Your task to perform on an android device: turn pop-ups on in chrome Image 0: 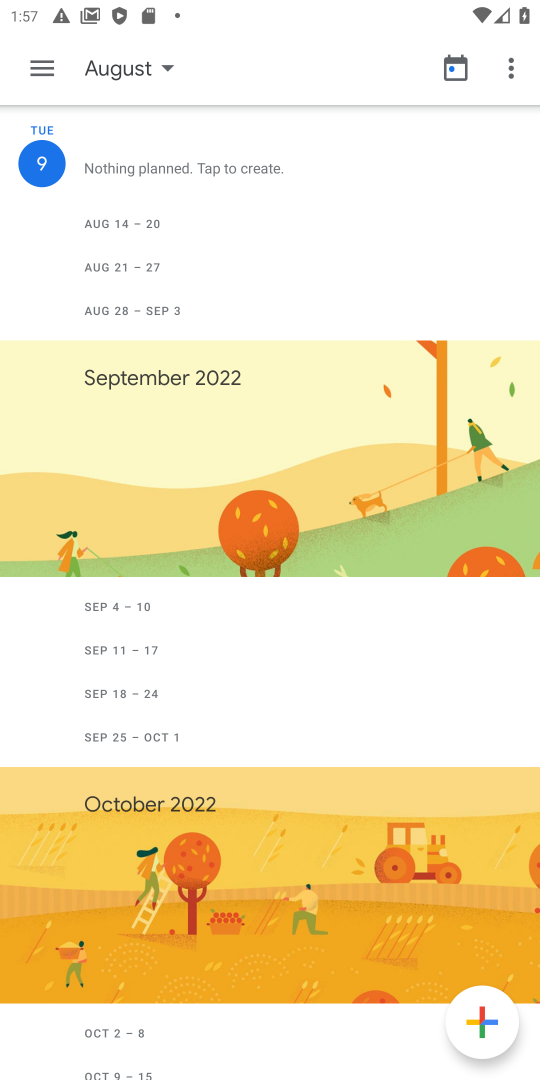
Step 0: press back button
Your task to perform on an android device: turn pop-ups on in chrome Image 1: 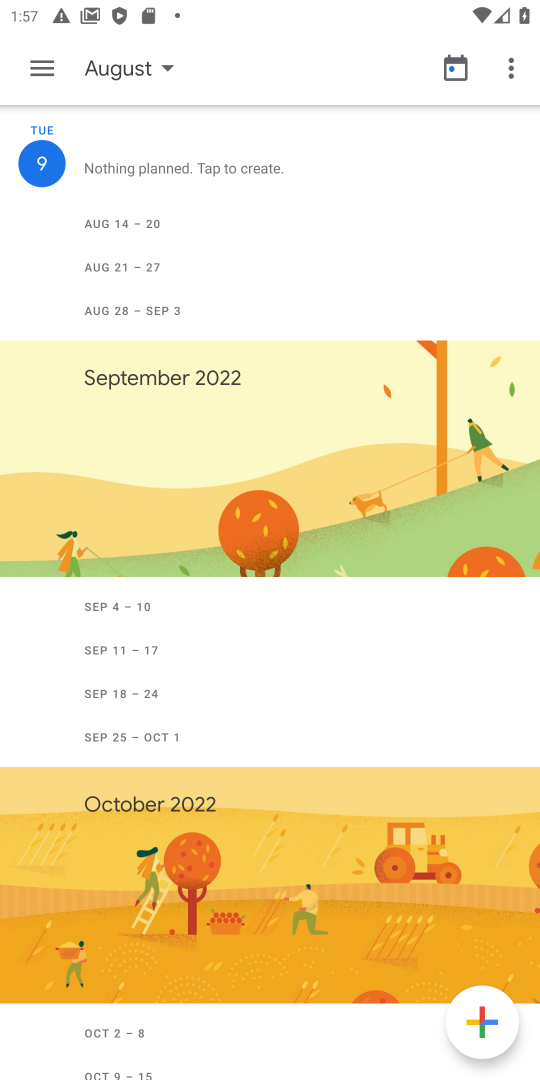
Step 1: press back button
Your task to perform on an android device: turn pop-ups on in chrome Image 2: 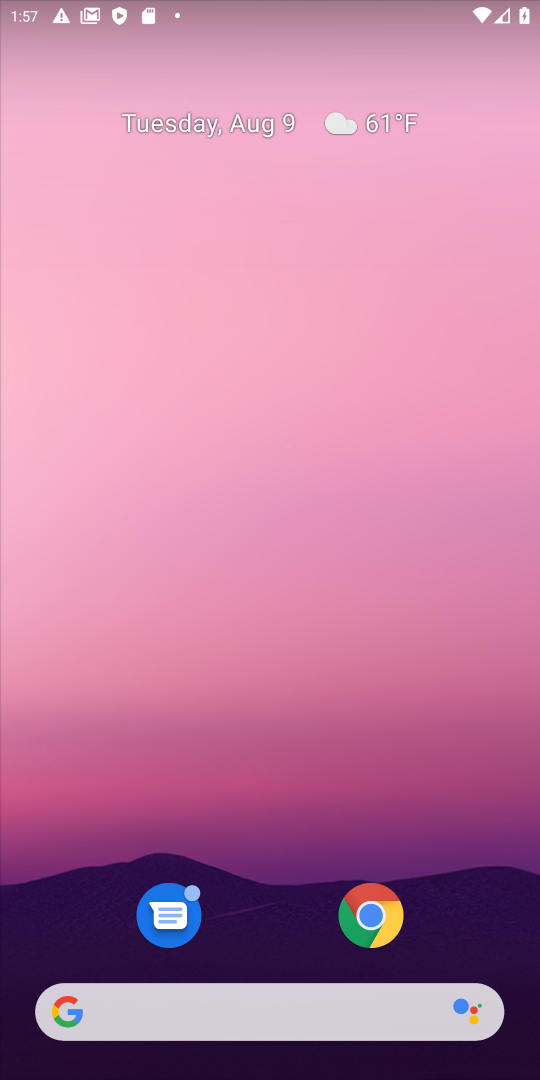
Step 2: press back button
Your task to perform on an android device: turn pop-ups on in chrome Image 3: 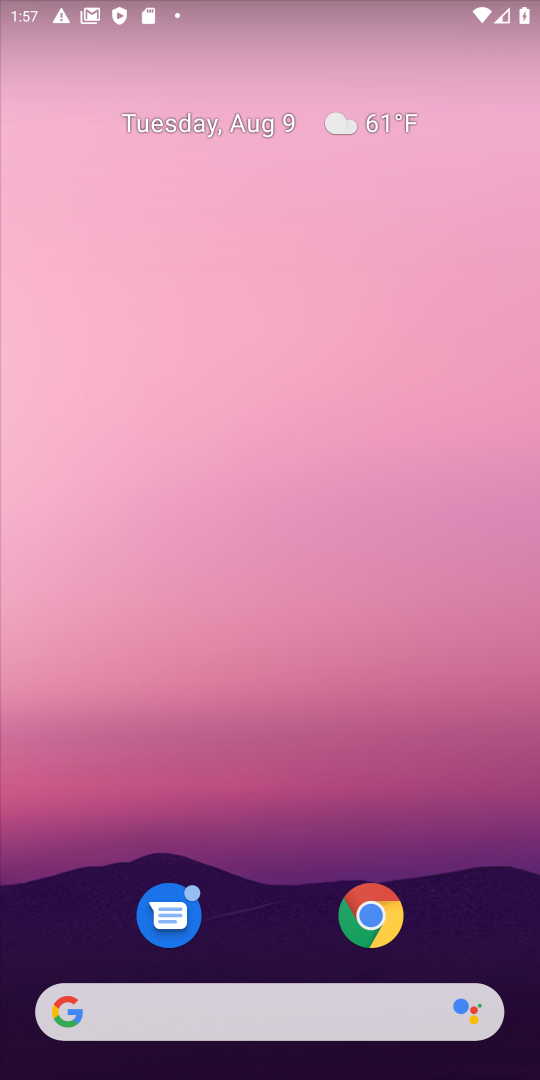
Step 3: drag from (177, 74) to (294, 45)
Your task to perform on an android device: turn pop-ups on in chrome Image 4: 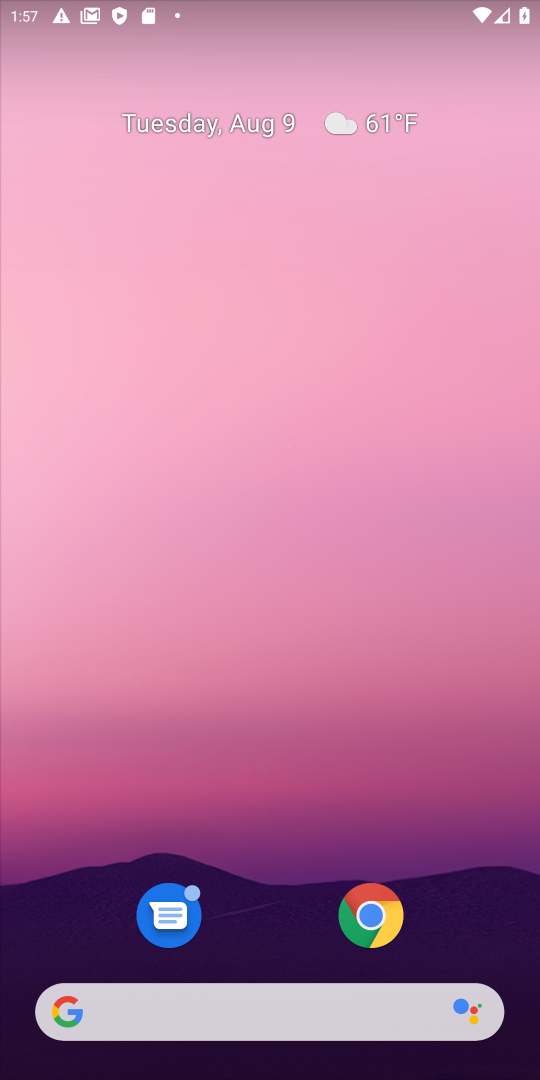
Step 4: drag from (236, 23) to (101, 172)
Your task to perform on an android device: turn pop-ups on in chrome Image 5: 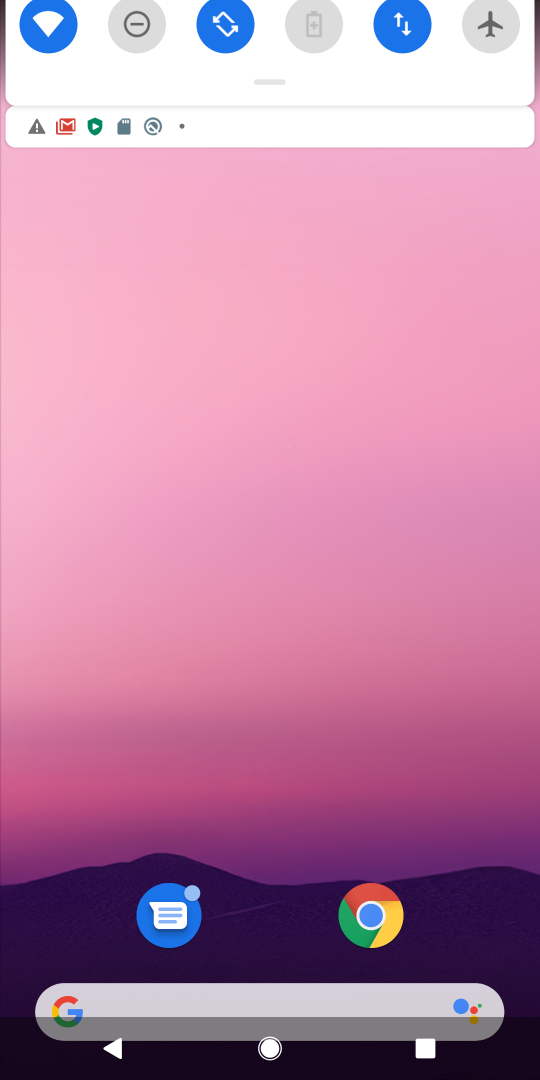
Step 5: drag from (223, 7) to (245, 55)
Your task to perform on an android device: turn pop-ups on in chrome Image 6: 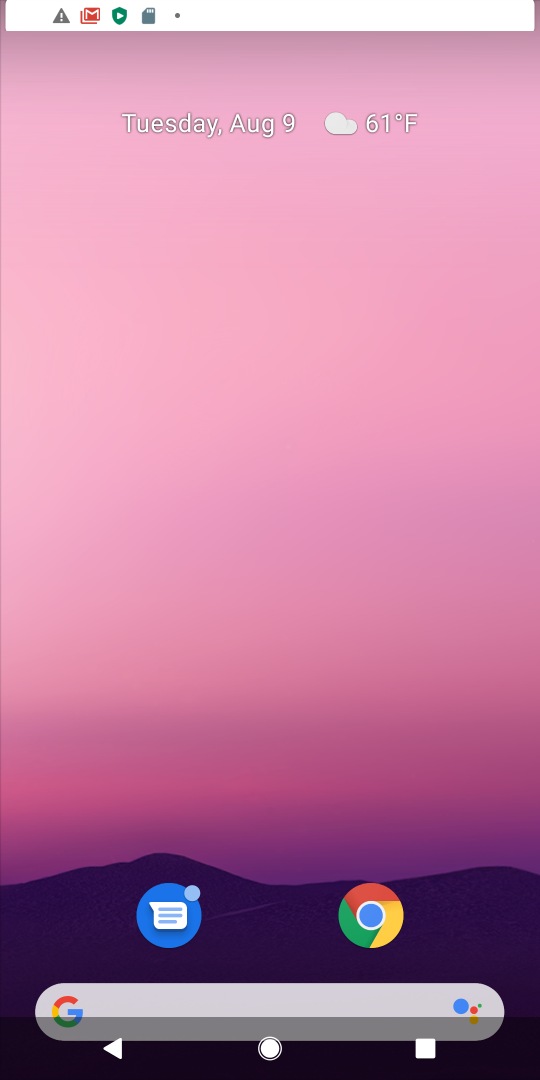
Step 6: drag from (286, 865) to (401, 168)
Your task to perform on an android device: turn pop-ups on in chrome Image 7: 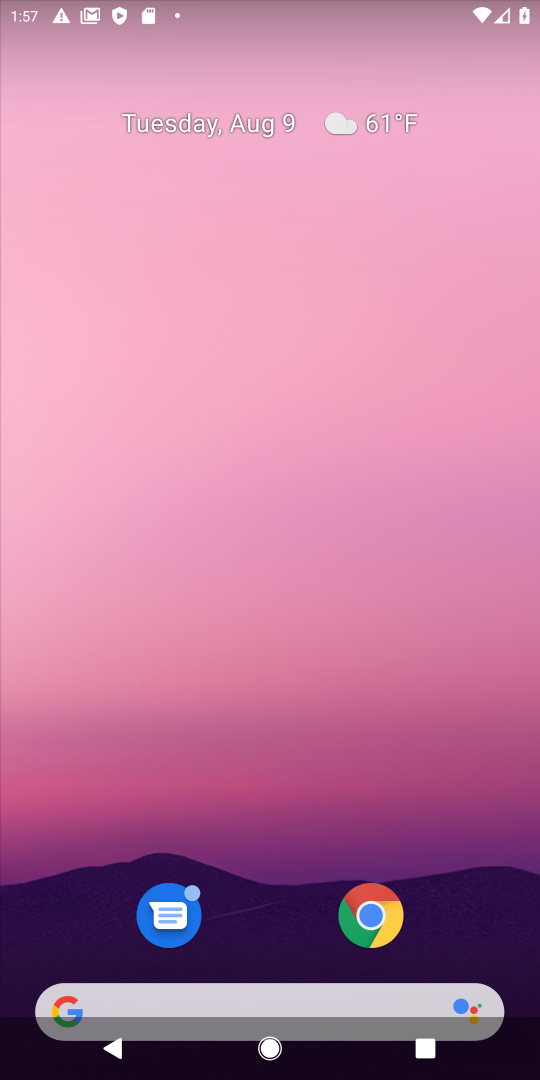
Step 7: drag from (254, 1070) to (251, 417)
Your task to perform on an android device: turn pop-ups on in chrome Image 8: 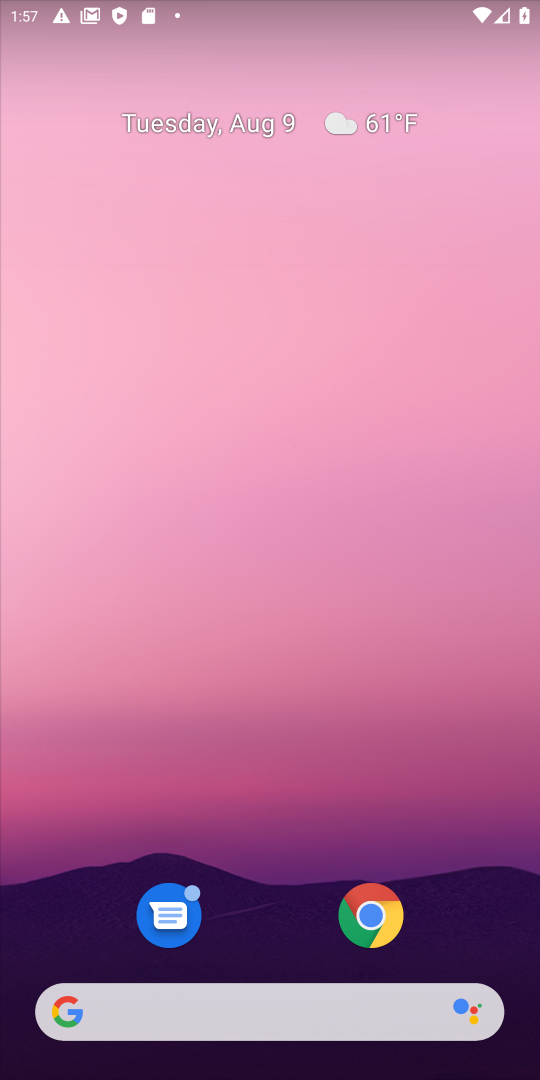
Step 8: click (248, 517)
Your task to perform on an android device: turn pop-ups on in chrome Image 9: 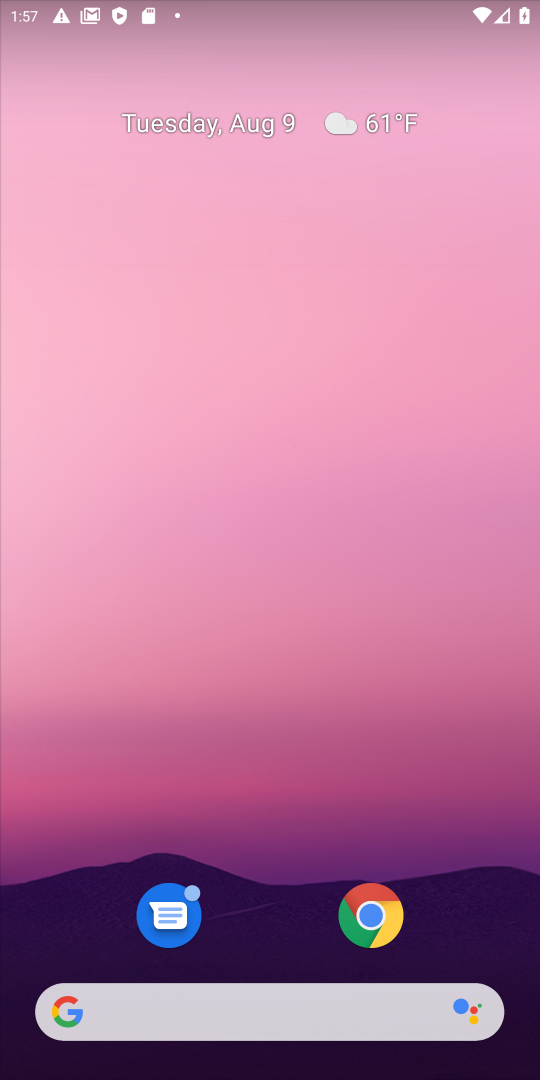
Step 9: drag from (328, 736) to (328, 279)
Your task to perform on an android device: turn pop-ups on in chrome Image 10: 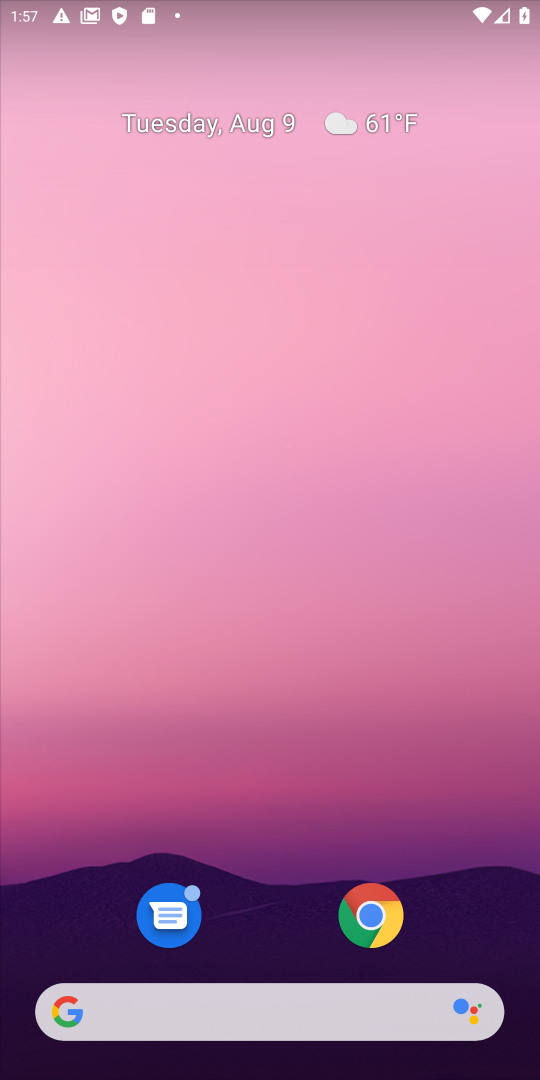
Step 10: drag from (346, 298) to (346, 124)
Your task to perform on an android device: turn pop-ups on in chrome Image 11: 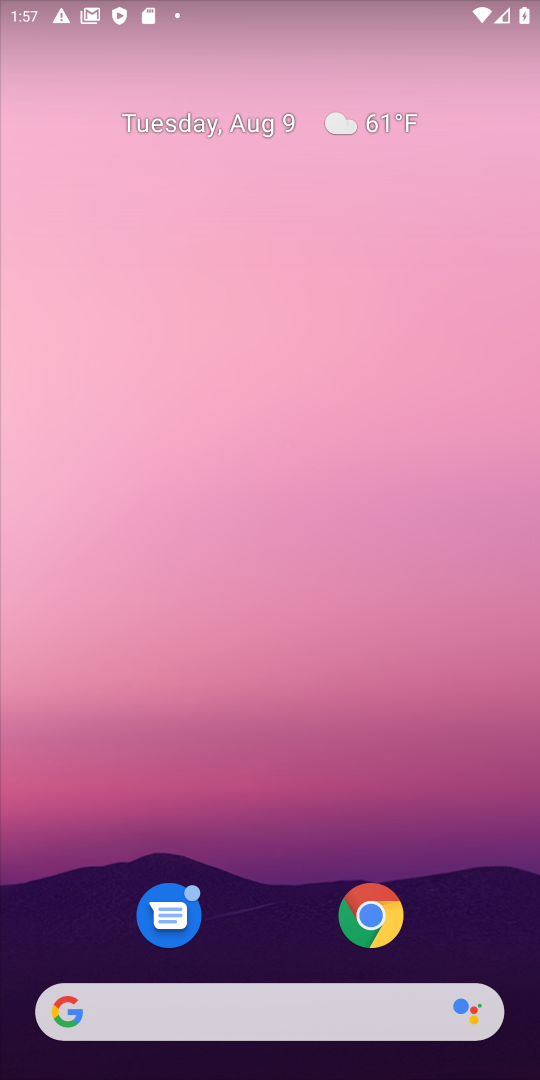
Step 11: click (326, 284)
Your task to perform on an android device: turn pop-ups on in chrome Image 12: 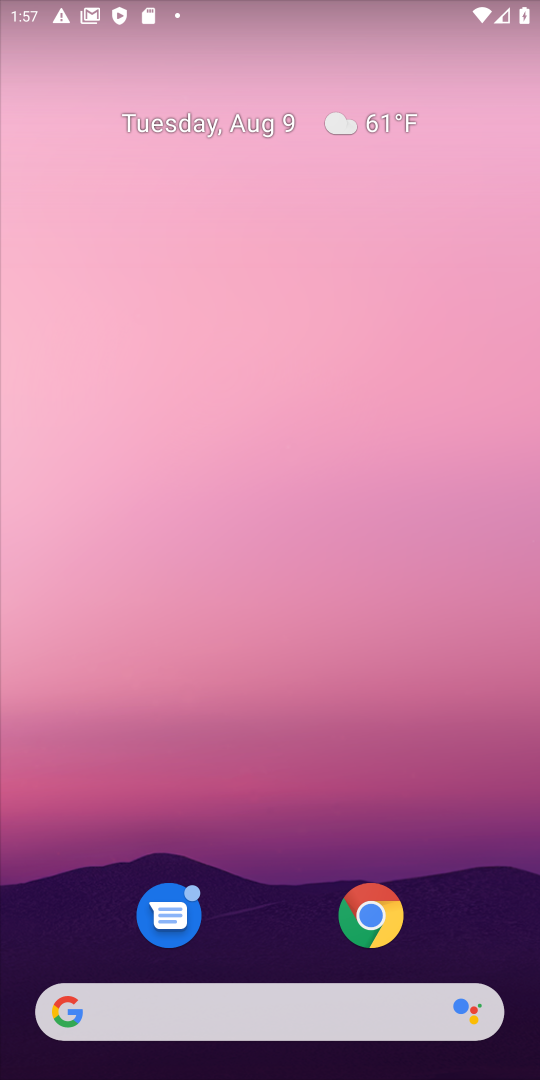
Step 12: drag from (373, 946) to (371, 227)
Your task to perform on an android device: turn pop-ups on in chrome Image 13: 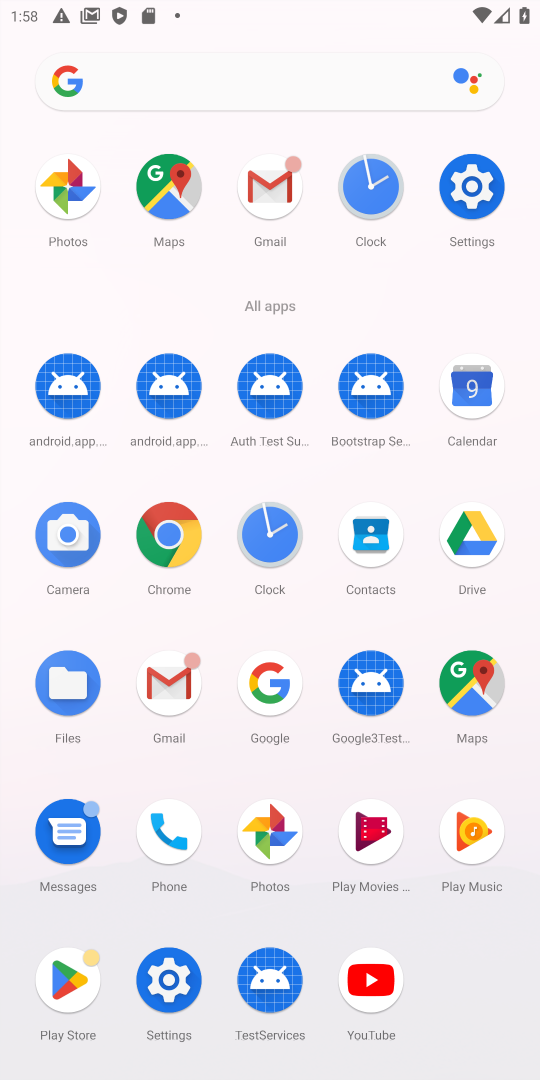
Step 13: click (156, 537)
Your task to perform on an android device: turn pop-ups on in chrome Image 14: 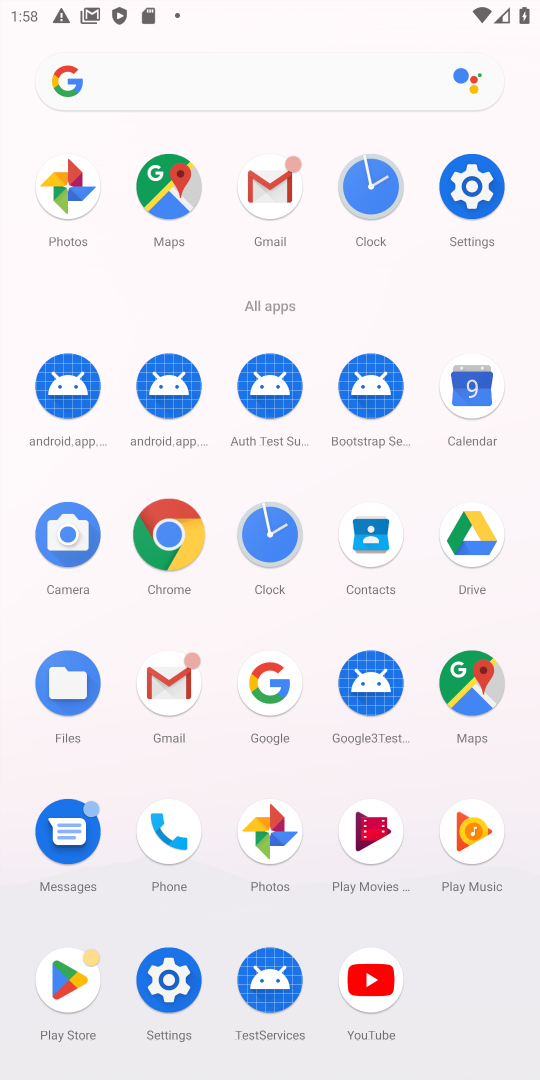
Step 14: click (157, 537)
Your task to perform on an android device: turn pop-ups on in chrome Image 15: 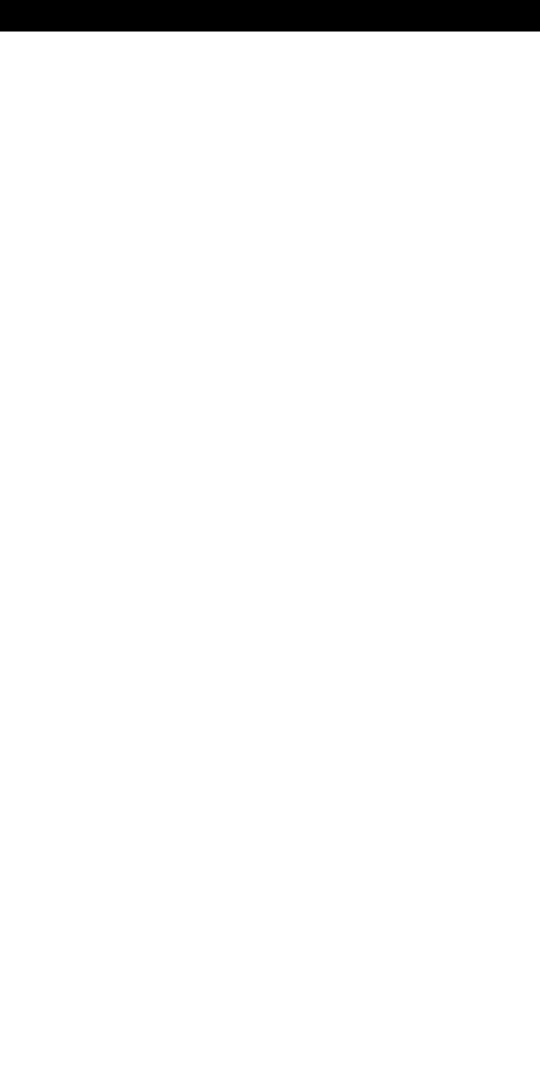
Step 15: click (169, 531)
Your task to perform on an android device: turn pop-ups on in chrome Image 16: 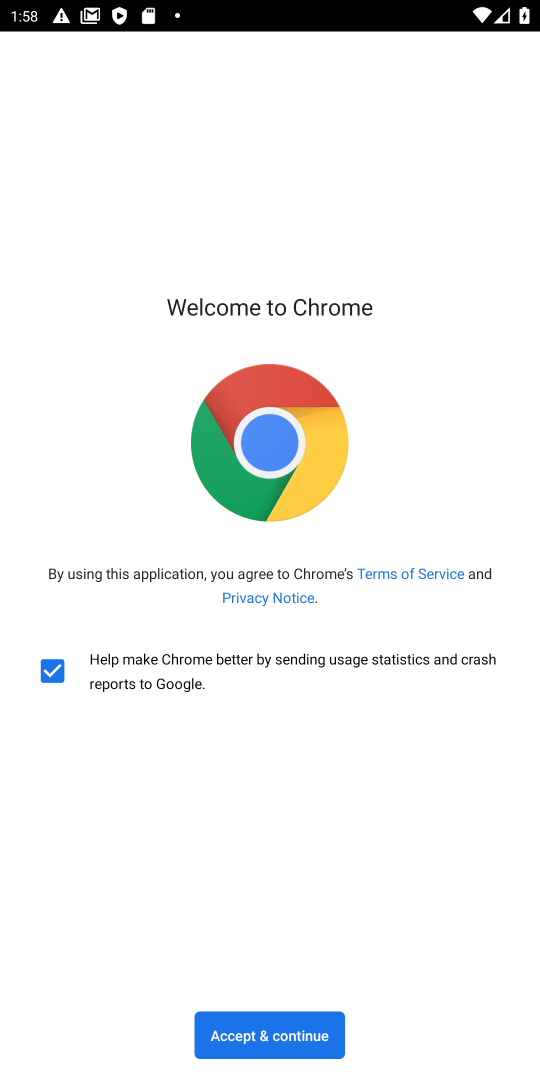
Step 16: click (258, 1026)
Your task to perform on an android device: turn pop-ups on in chrome Image 17: 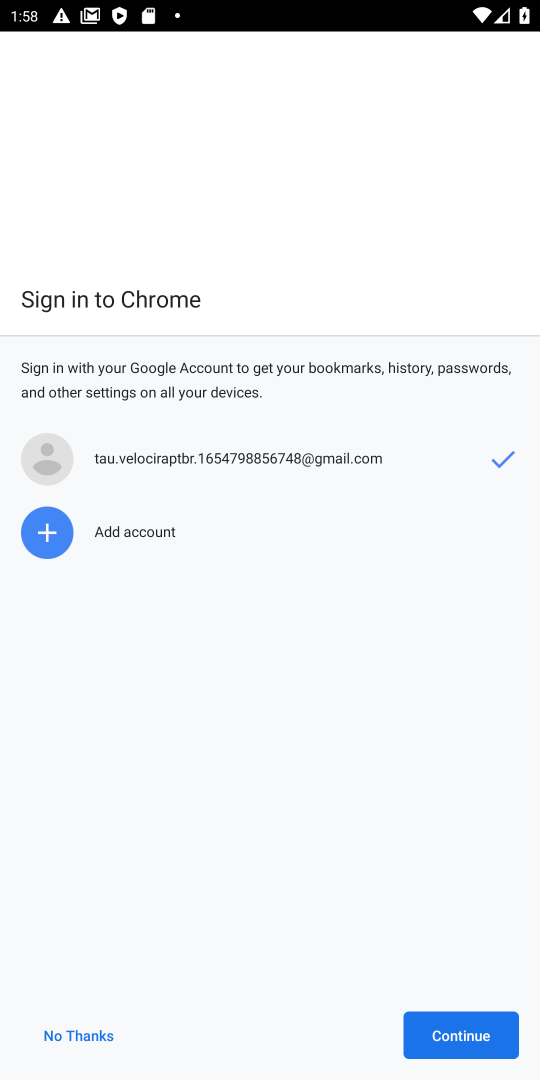
Step 17: click (280, 1029)
Your task to perform on an android device: turn pop-ups on in chrome Image 18: 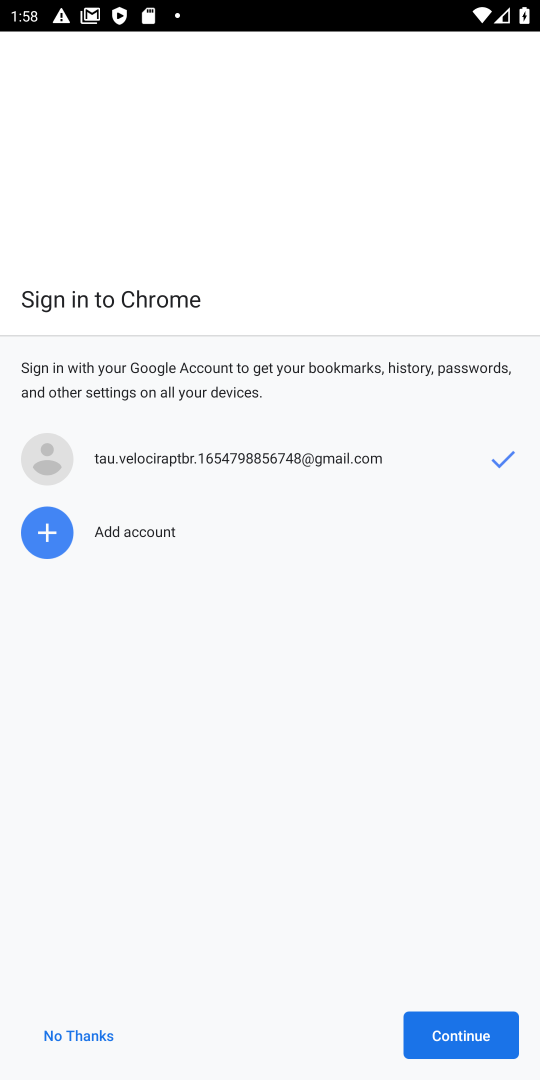
Step 18: click (105, 1053)
Your task to perform on an android device: turn pop-ups on in chrome Image 19: 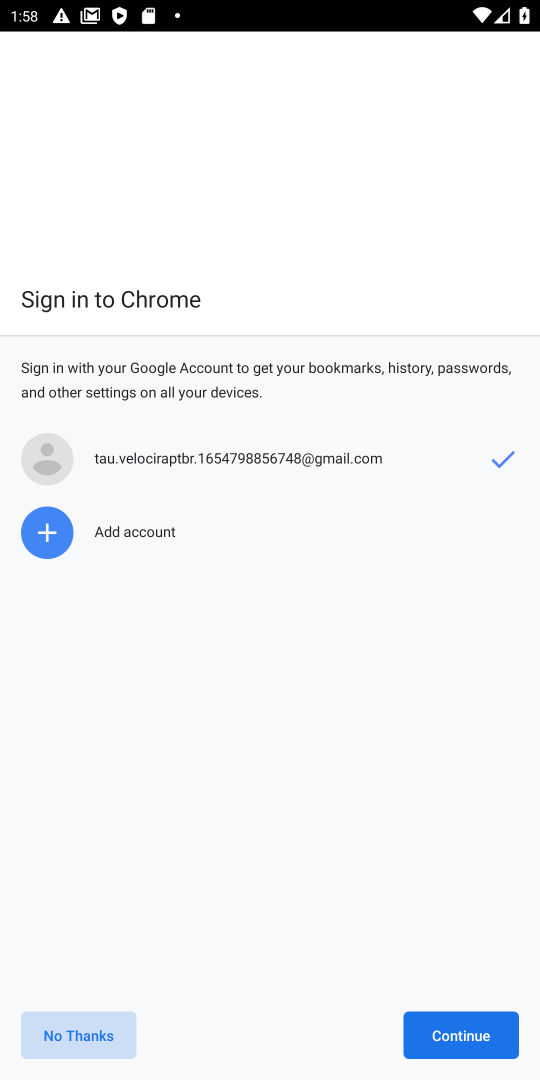
Step 19: click (88, 1034)
Your task to perform on an android device: turn pop-ups on in chrome Image 20: 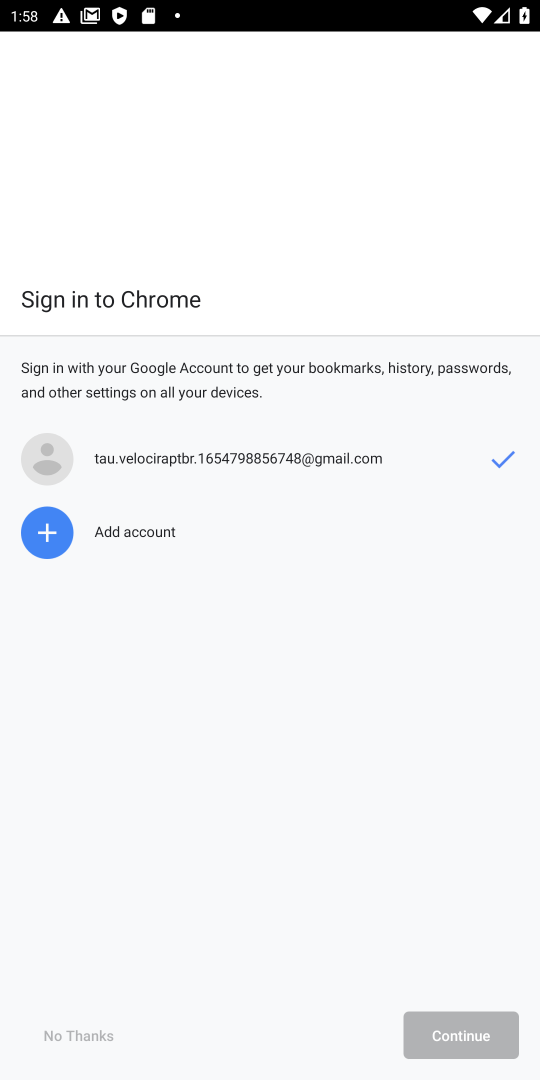
Step 20: click (84, 1040)
Your task to perform on an android device: turn pop-ups on in chrome Image 21: 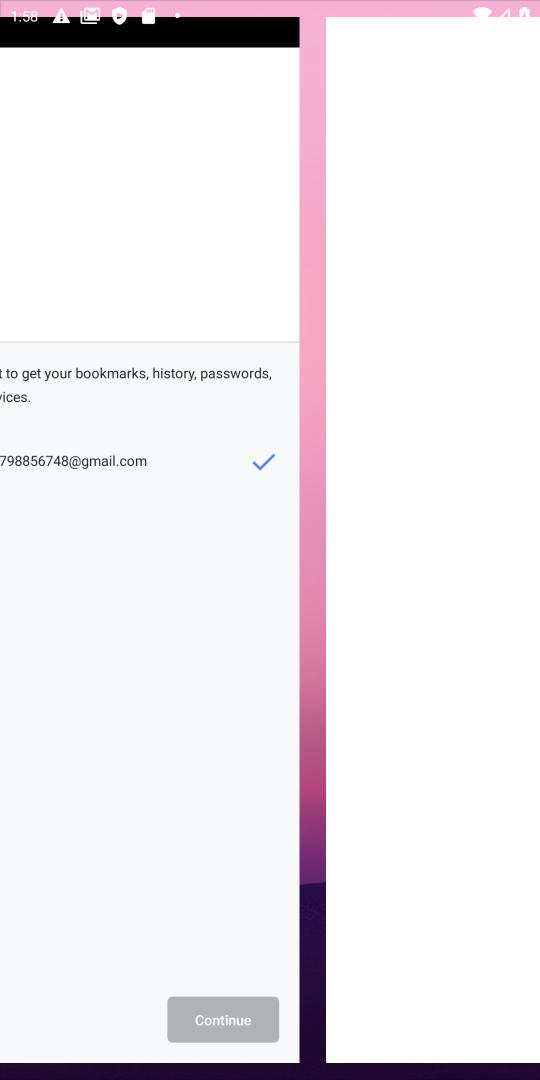
Step 21: click (87, 1040)
Your task to perform on an android device: turn pop-ups on in chrome Image 22: 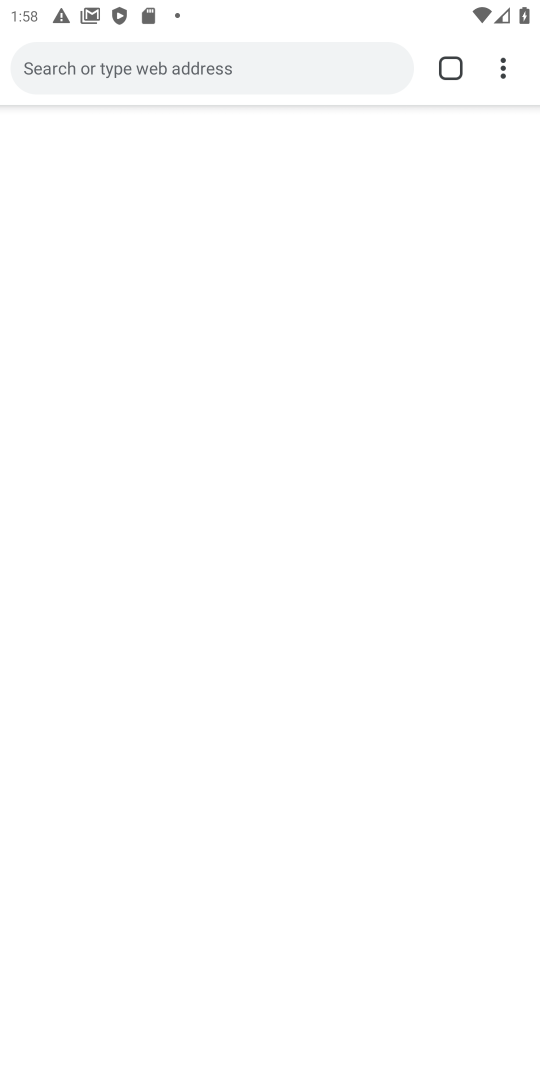
Step 22: drag from (490, 76) to (364, 496)
Your task to perform on an android device: turn pop-ups on in chrome Image 23: 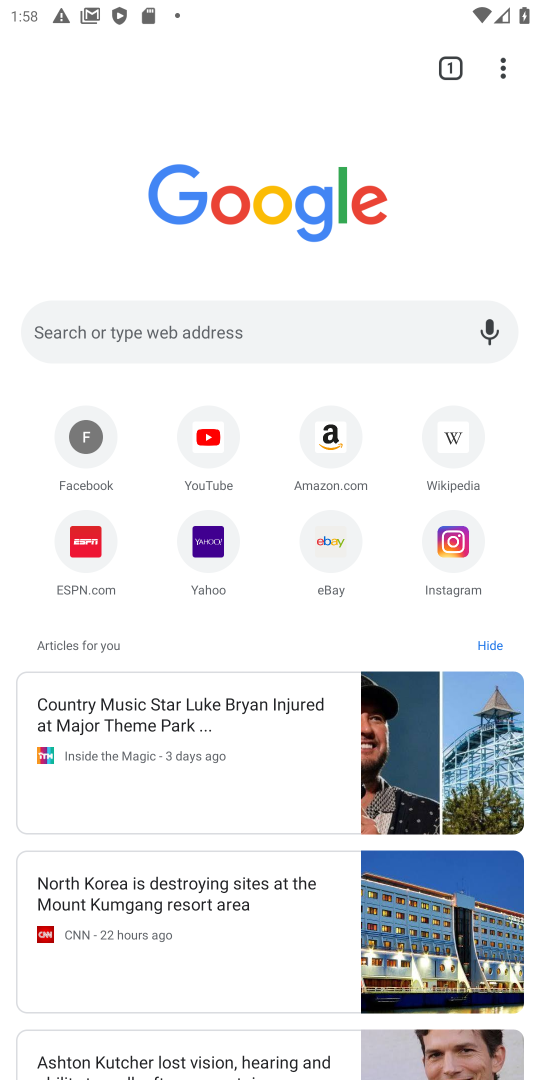
Step 23: drag from (497, 63) to (317, 565)
Your task to perform on an android device: turn pop-ups on in chrome Image 24: 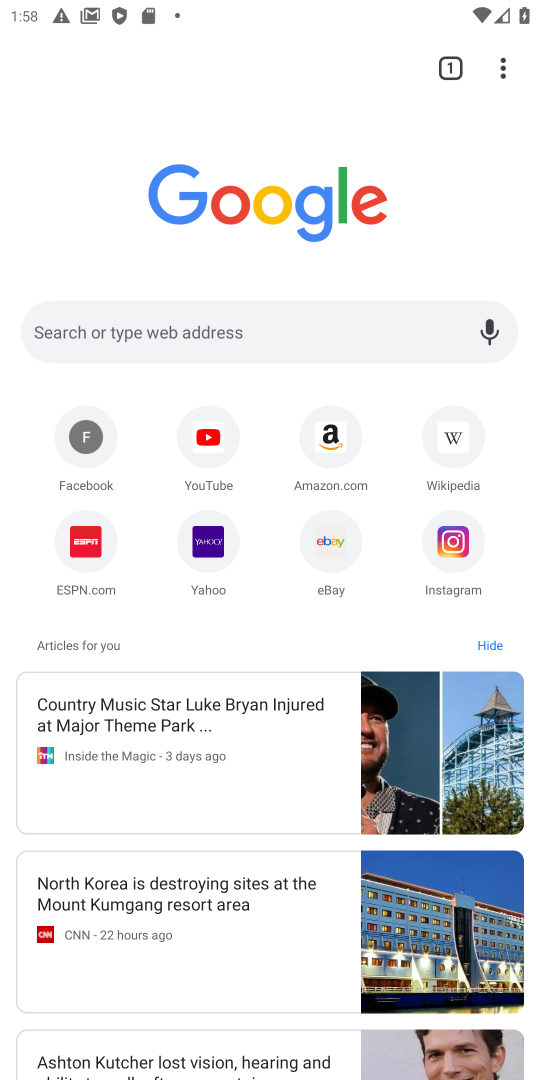
Step 24: click (254, 581)
Your task to perform on an android device: turn pop-ups on in chrome Image 25: 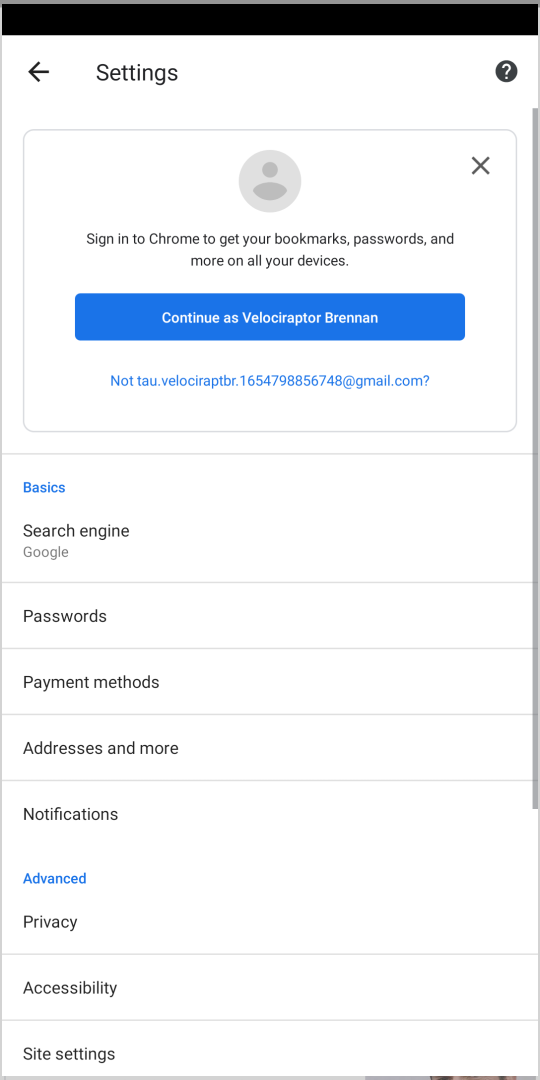
Step 25: drag from (505, 72) to (341, 736)
Your task to perform on an android device: turn pop-ups on in chrome Image 26: 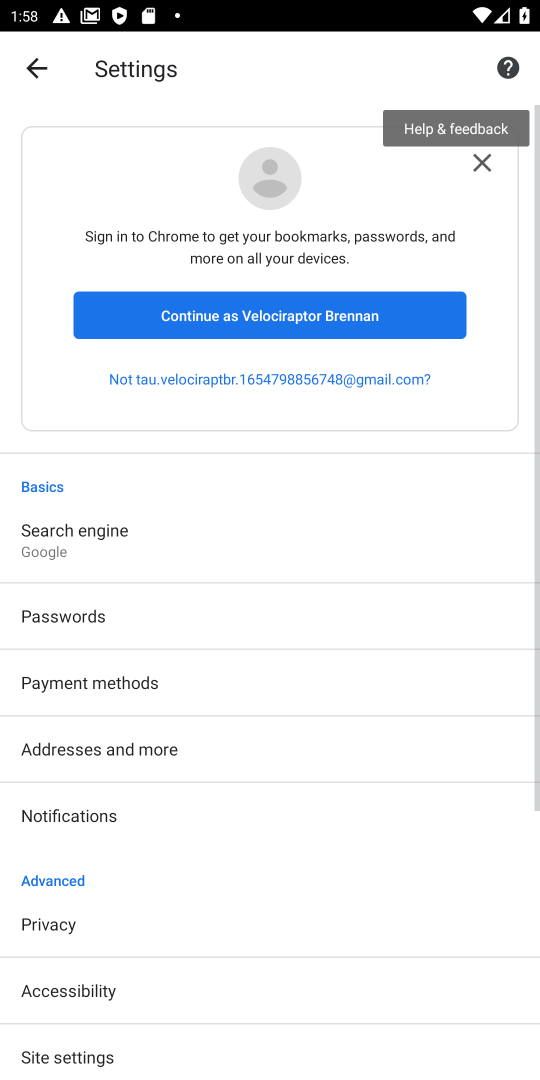
Step 26: drag from (224, 729) to (144, 519)
Your task to perform on an android device: turn pop-ups on in chrome Image 27: 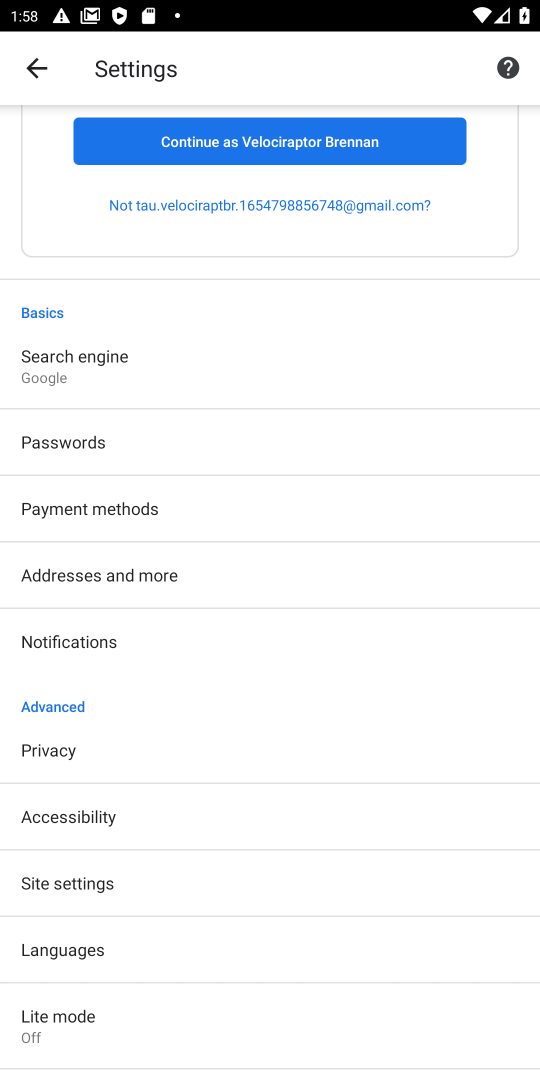
Step 27: click (49, 889)
Your task to perform on an android device: turn pop-ups on in chrome Image 28: 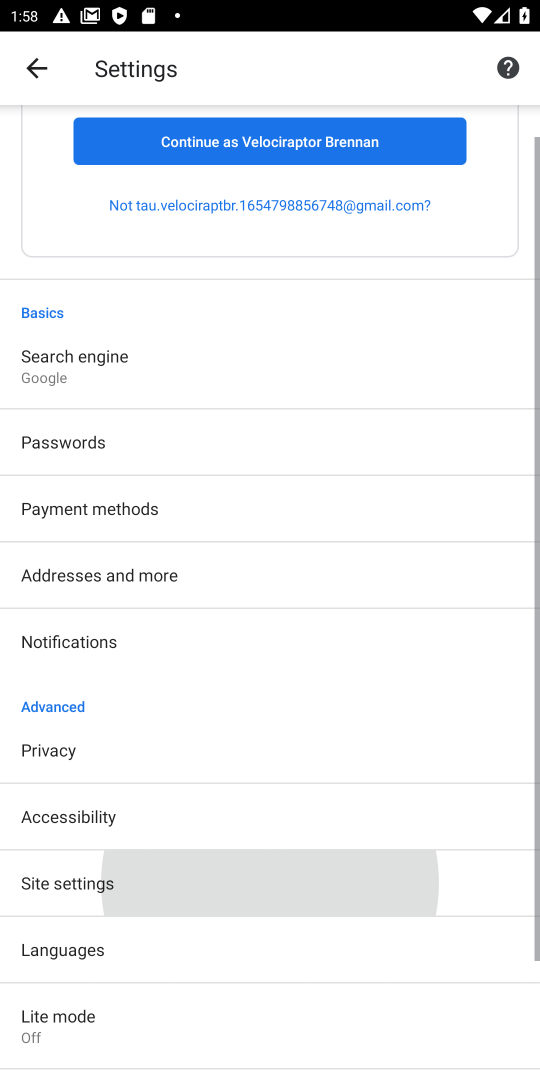
Step 28: click (52, 885)
Your task to perform on an android device: turn pop-ups on in chrome Image 29: 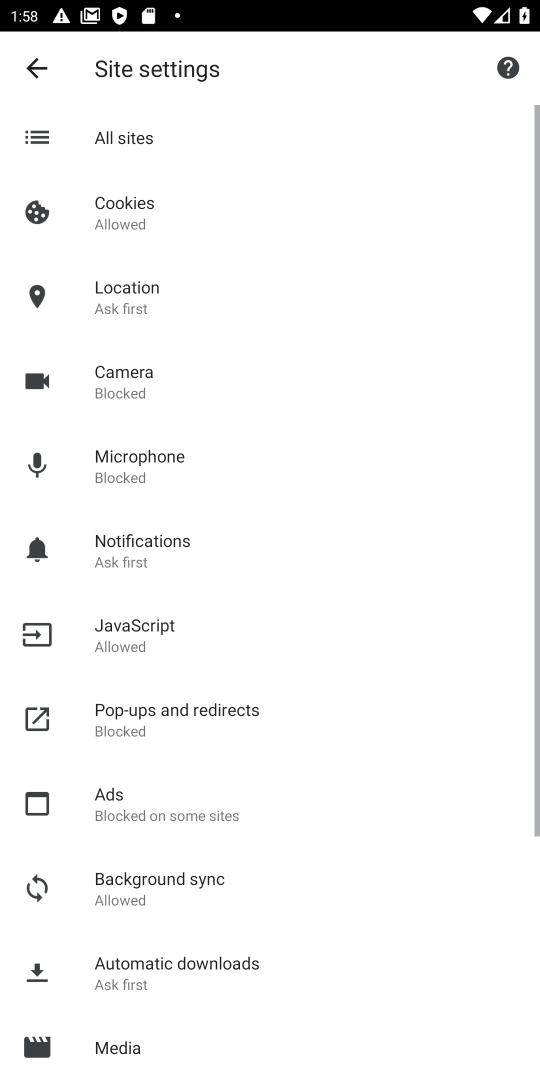
Step 29: click (57, 875)
Your task to perform on an android device: turn pop-ups on in chrome Image 30: 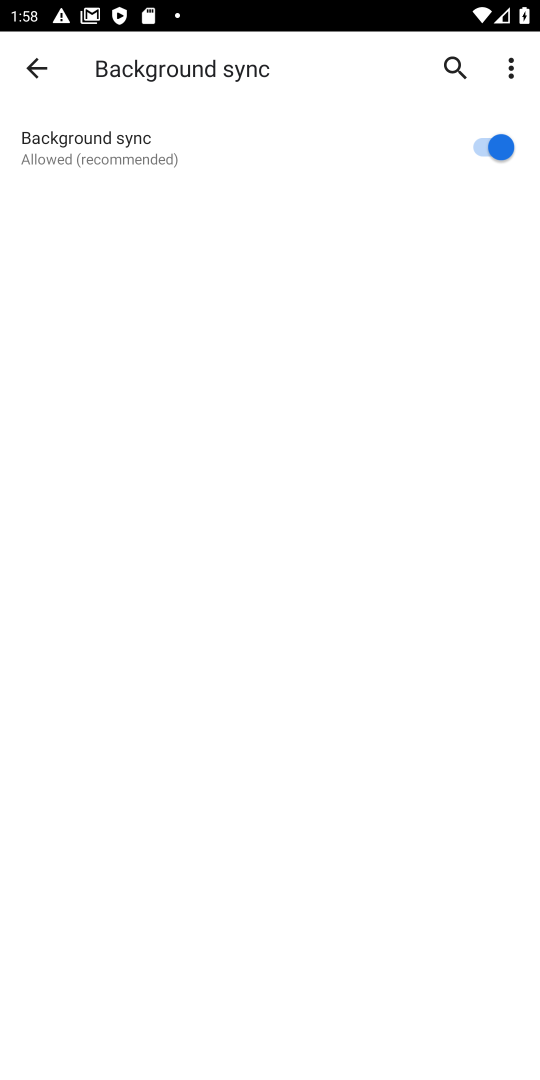
Step 30: click (35, 70)
Your task to perform on an android device: turn pop-ups on in chrome Image 31: 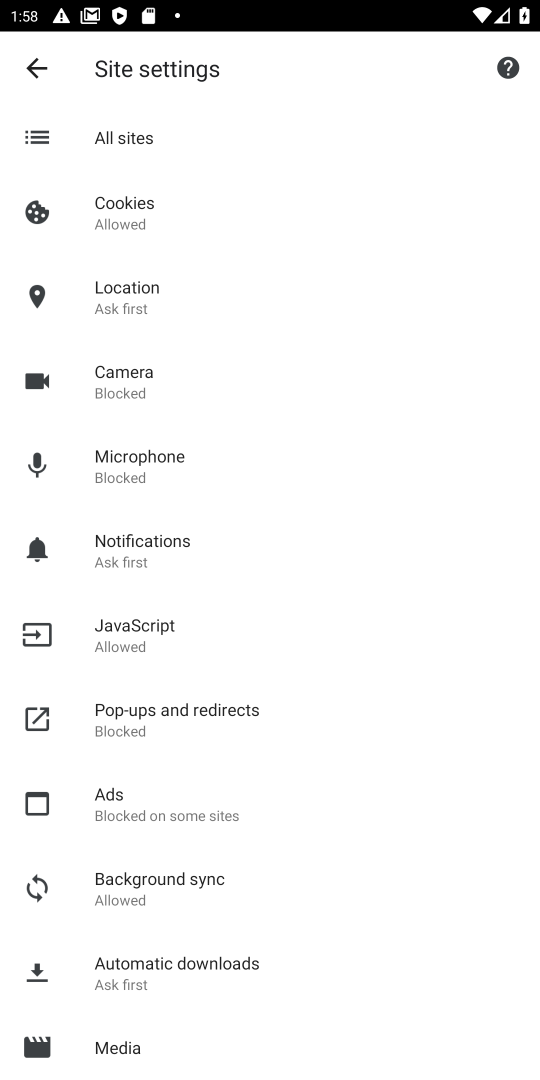
Step 31: click (132, 717)
Your task to perform on an android device: turn pop-ups on in chrome Image 32: 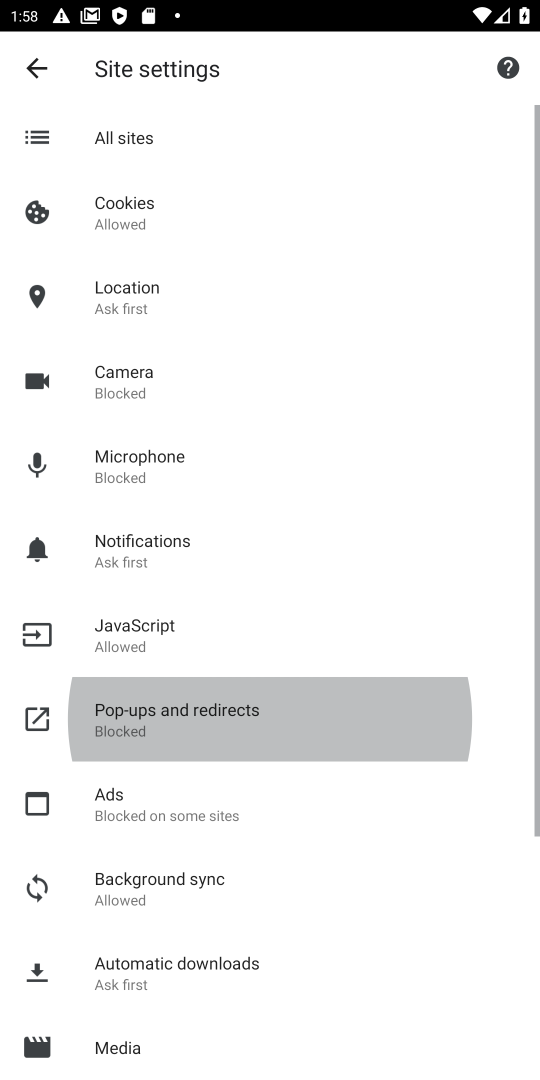
Step 32: click (132, 718)
Your task to perform on an android device: turn pop-ups on in chrome Image 33: 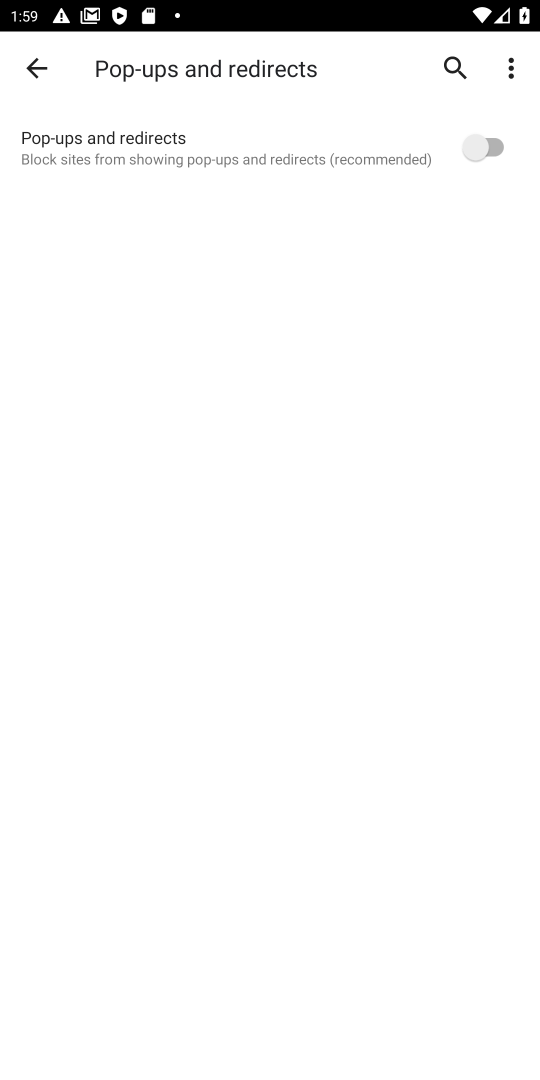
Step 33: click (465, 144)
Your task to perform on an android device: turn pop-ups on in chrome Image 34: 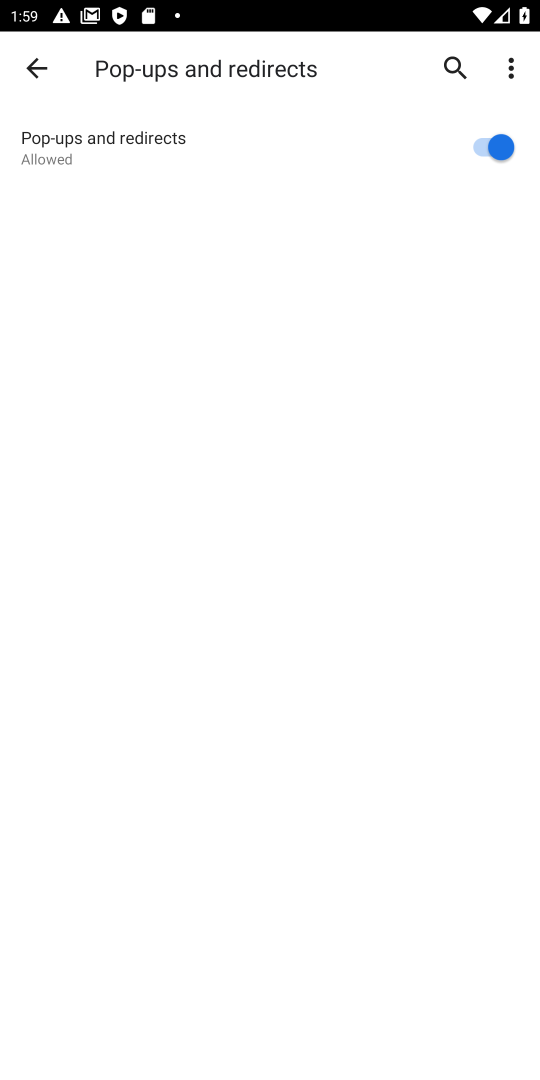
Step 34: task complete